Your task to perform on an android device: turn off sleep mode Image 0: 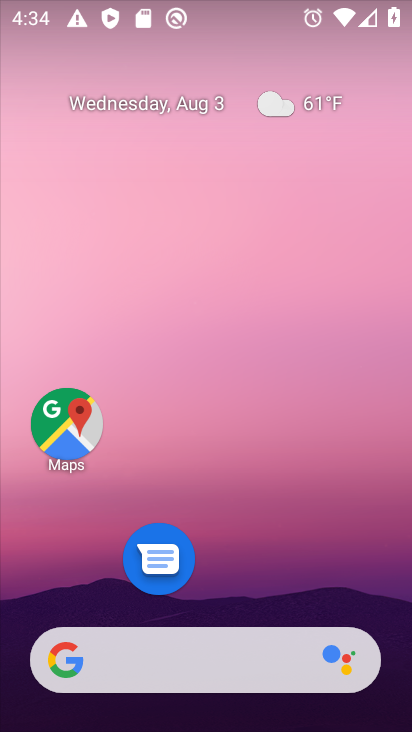
Step 0: drag from (216, 319) to (216, 240)
Your task to perform on an android device: turn off sleep mode Image 1: 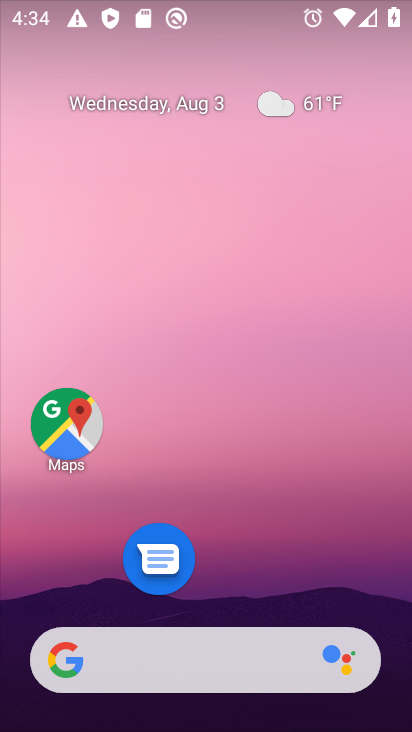
Step 1: drag from (190, 643) to (250, 157)
Your task to perform on an android device: turn off sleep mode Image 2: 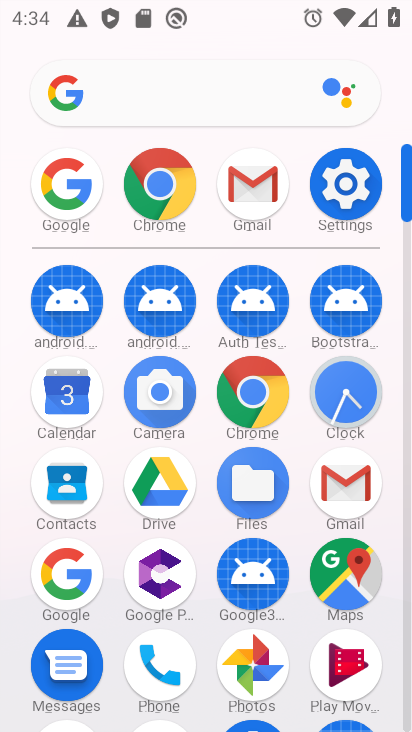
Step 2: click (354, 197)
Your task to perform on an android device: turn off sleep mode Image 3: 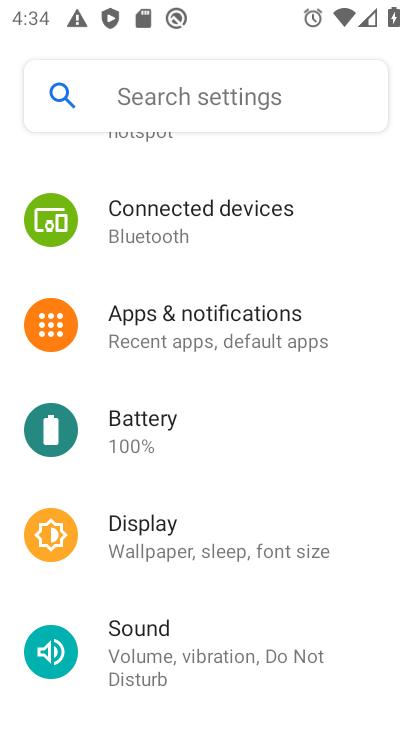
Step 3: click (223, 543)
Your task to perform on an android device: turn off sleep mode Image 4: 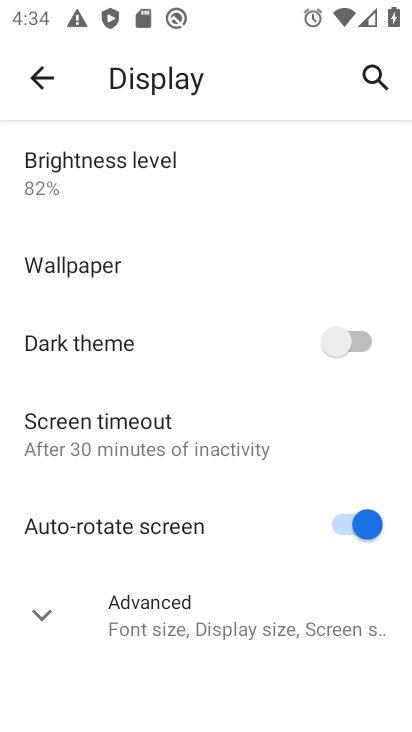
Step 4: drag from (103, 188) to (103, 501)
Your task to perform on an android device: turn off sleep mode Image 5: 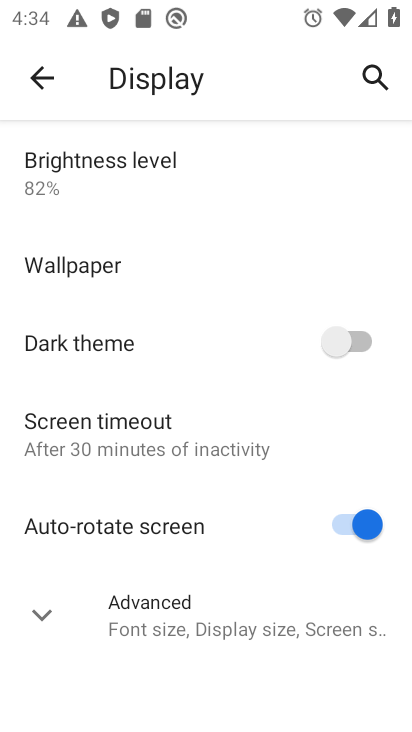
Step 5: click (86, 432)
Your task to perform on an android device: turn off sleep mode Image 6: 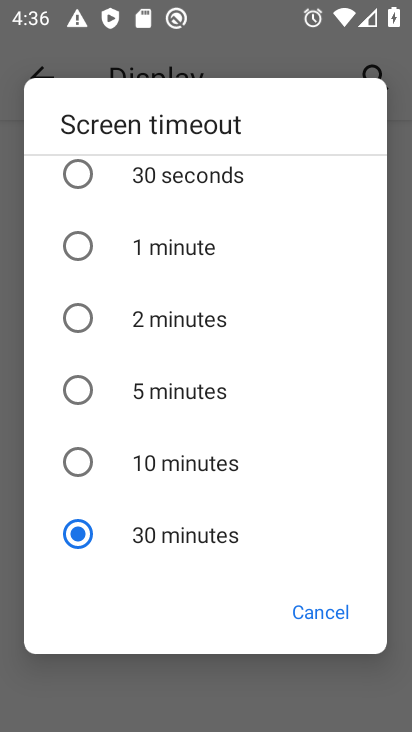
Step 6: drag from (165, 190) to (190, 419)
Your task to perform on an android device: turn off sleep mode Image 7: 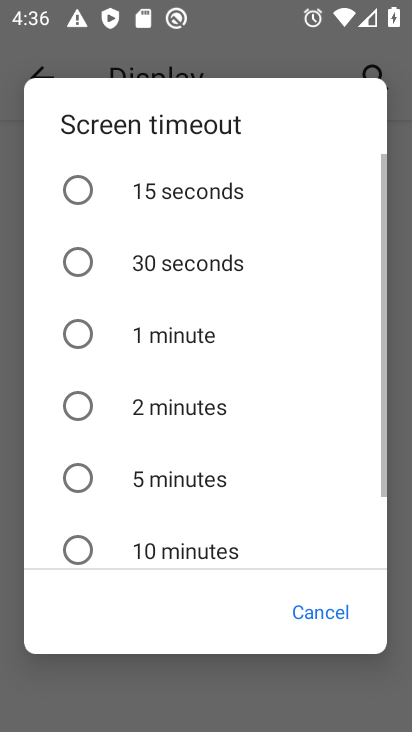
Step 7: click (159, 186)
Your task to perform on an android device: turn off sleep mode Image 8: 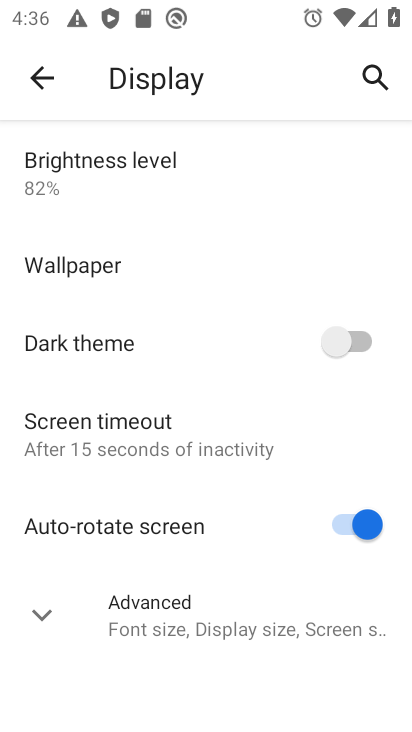
Step 8: task complete